Your task to perform on an android device: See recent photos Image 0: 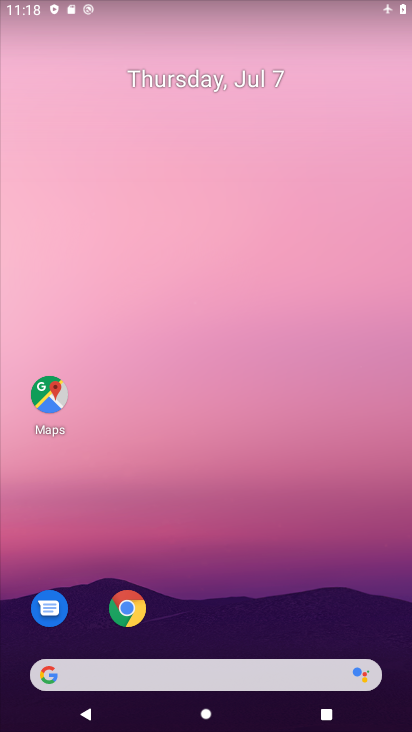
Step 0: drag from (378, 503) to (326, 42)
Your task to perform on an android device: See recent photos Image 1: 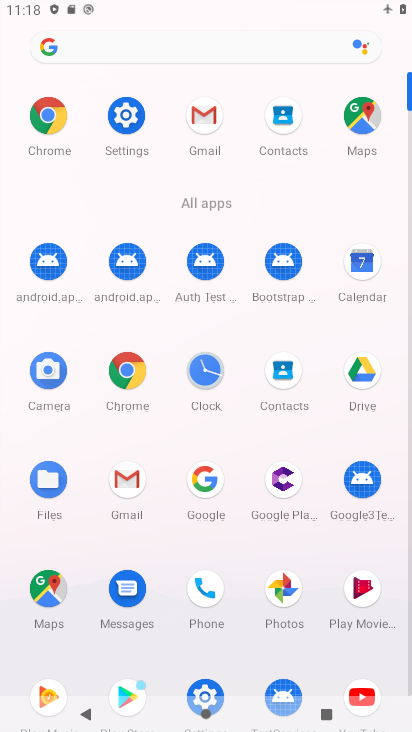
Step 1: click (282, 597)
Your task to perform on an android device: See recent photos Image 2: 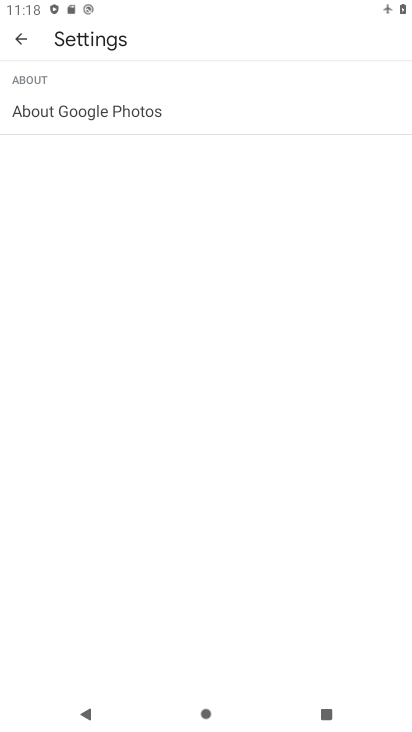
Step 2: click (24, 32)
Your task to perform on an android device: See recent photos Image 3: 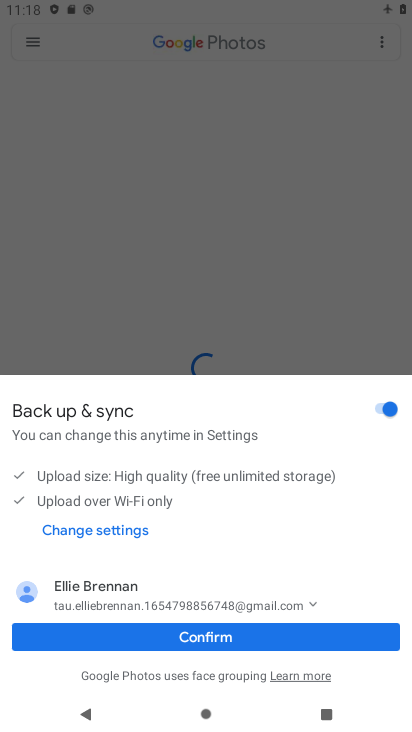
Step 3: click (208, 639)
Your task to perform on an android device: See recent photos Image 4: 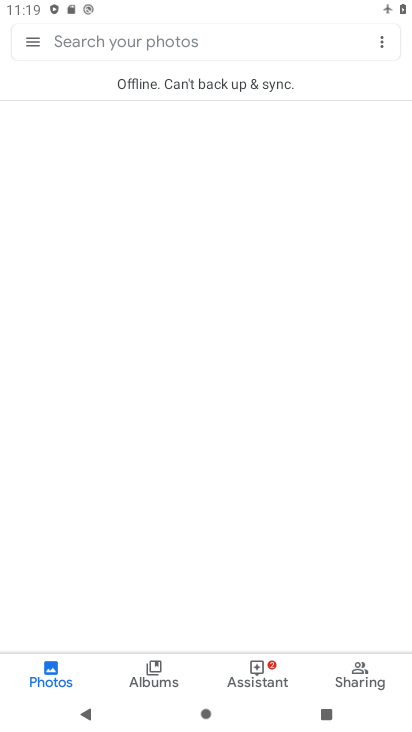
Step 4: task complete